Your task to perform on an android device: Show me popular videos on Youtube Image 0: 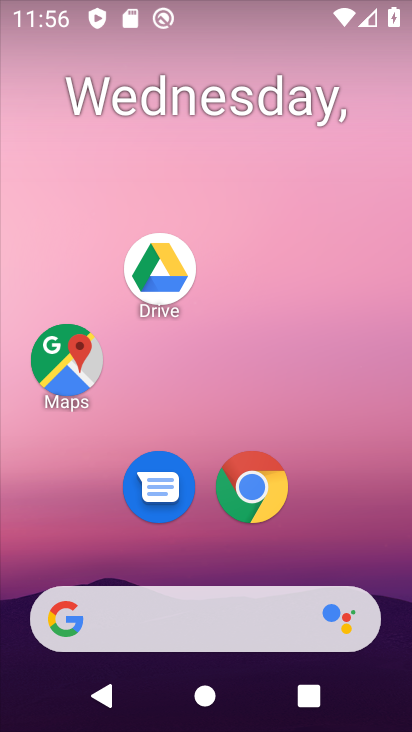
Step 0: drag from (206, 522) to (238, 76)
Your task to perform on an android device: Show me popular videos on Youtube Image 1: 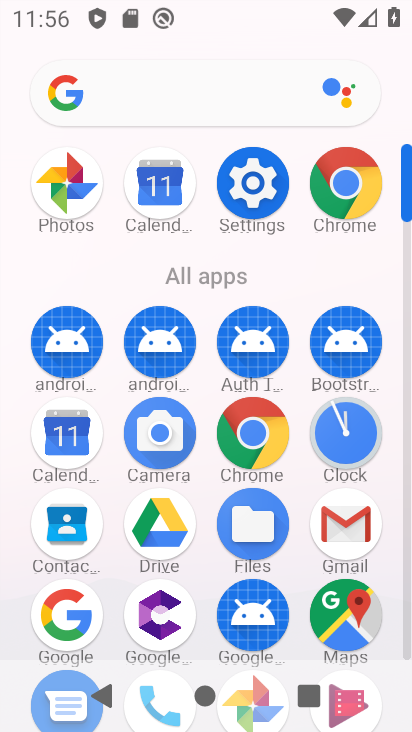
Step 1: drag from (206, 561) to (253, 206)
Your task to perform on an android device: Show me popular videos on Youtube Image 2: 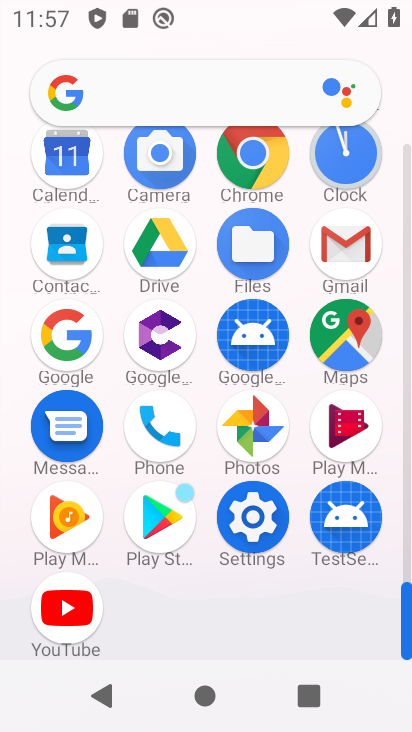
Step 2: drag from (194, 521) to (201, 301)
Your task to perform on an android device: Show me popular videos on Youtube Image 3: 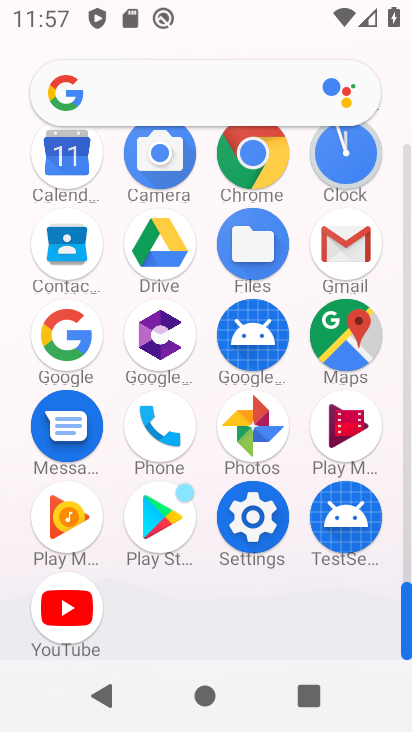
Step 3: click (65, 595)
Your task to perform on an android device: Show me popular videos on Youtube Image 4: 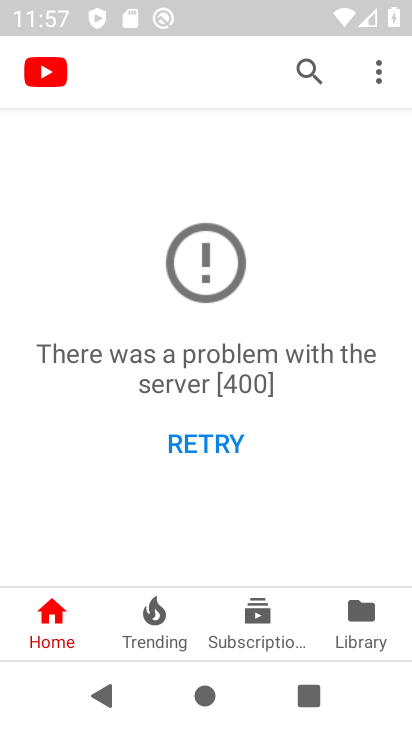
Step 4: click (164, 631)
Your task to perform on an android device: Show me popular videos on Youtube Image 5: 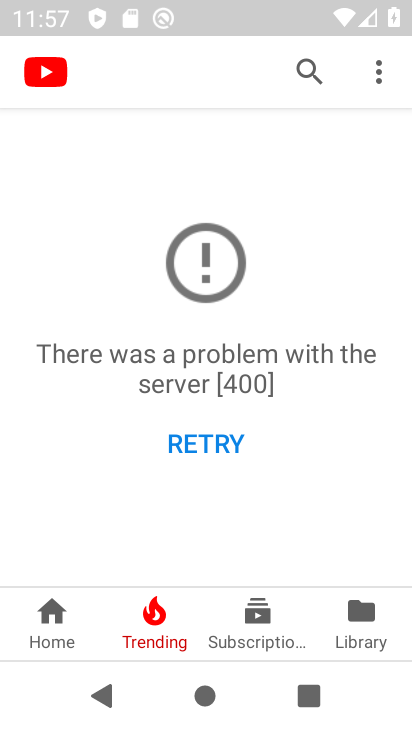
Step 5: task complete